Your task to perform on an android device: View the shopping cart on bestbuy.com. Add asus zenbook to the cart on bestbuy.com Image 0: 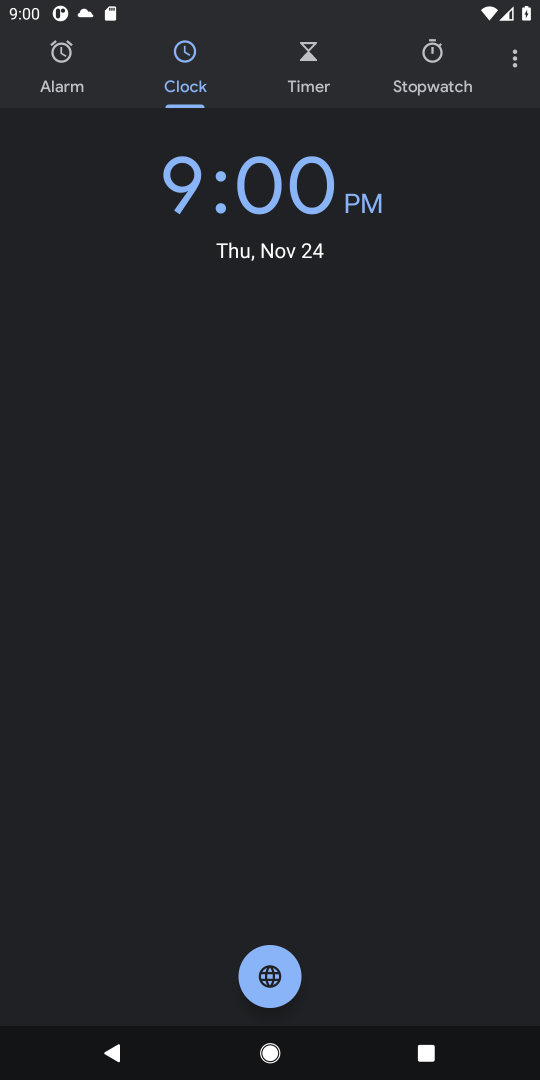
Step 0: press home button
Your task to perform on an android device: View the shopping cart on bestbuy.com. Add asus zenbook to the cart on bestbuy.com Image 1: 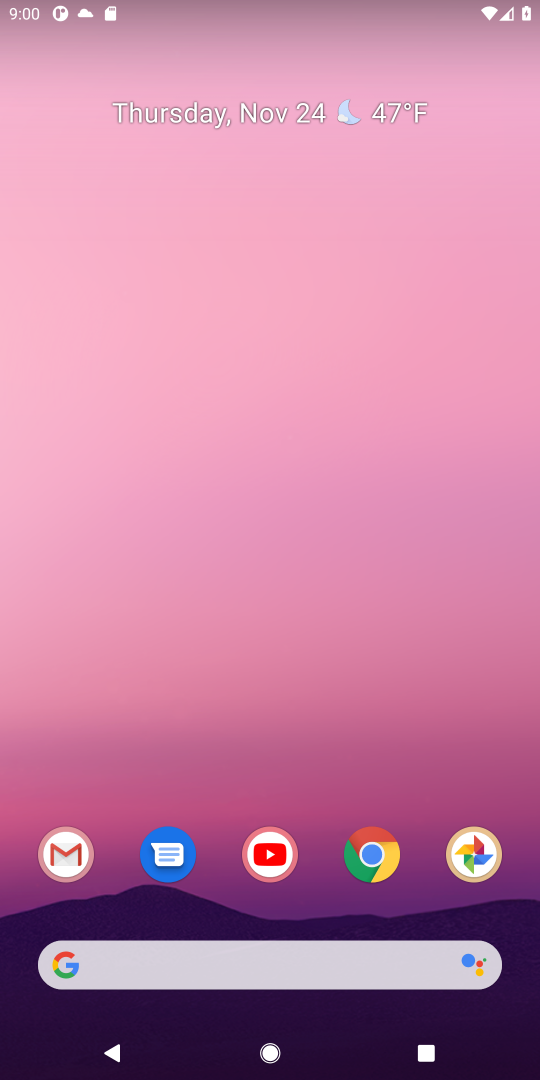
Step 1: click (366, 858)
Your task to perform on an android device: View the shopping cart on bestbuy.com. Add asus zenbook to the cart on bestbuy.com Image 2: 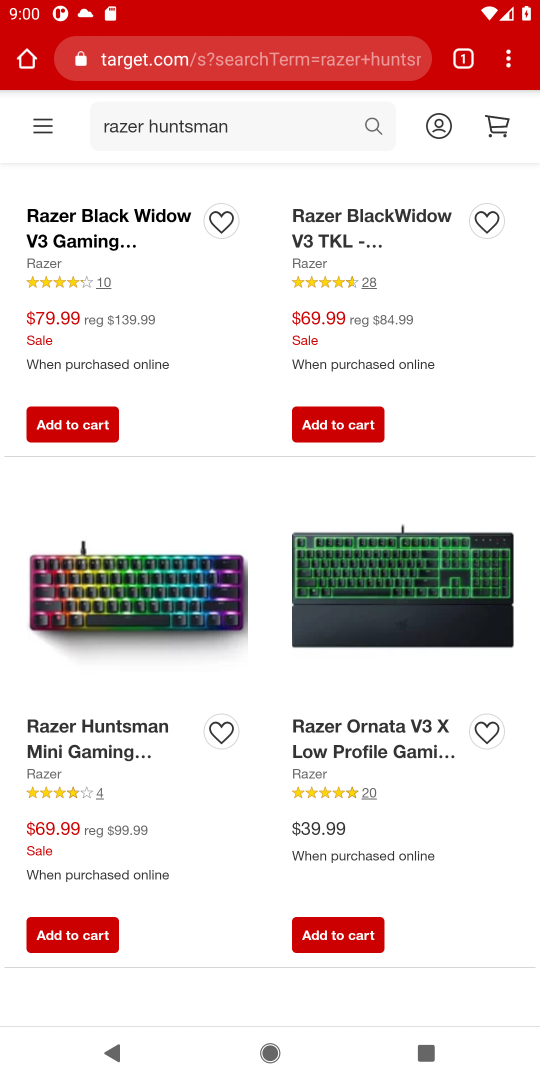
Step 2: click (180, 65)
Your task to perform on an android device: View the shopping cart on bestbuy.com. Add asus zenbook to the cart on bestbuy.com Image 3: 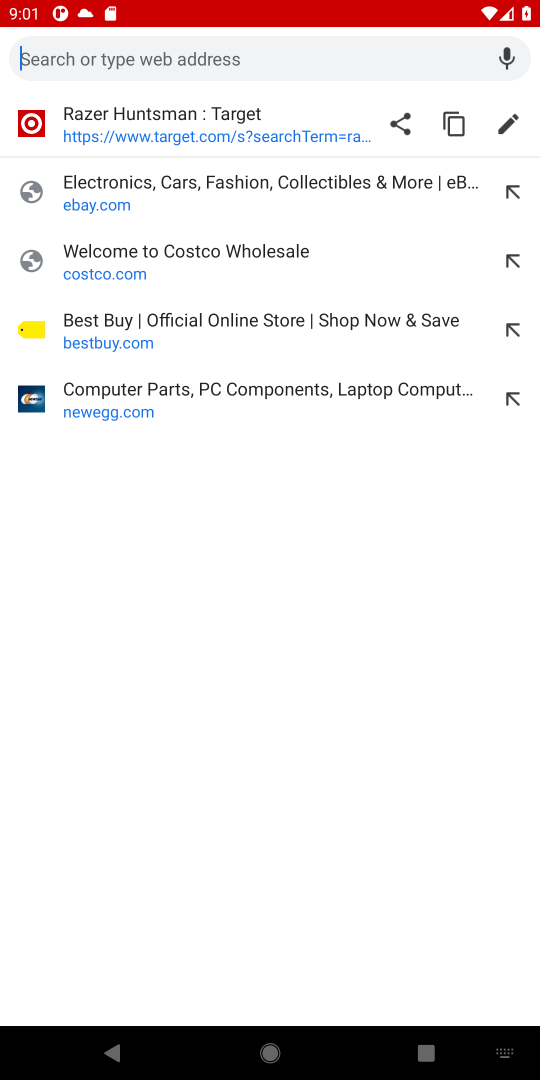
Step 3: click (69, 329)
Your task to perform on an android device: View the shopping cart on bestbuy.com. Add asus zenbook to the cart on bestbuy.com Image 4: 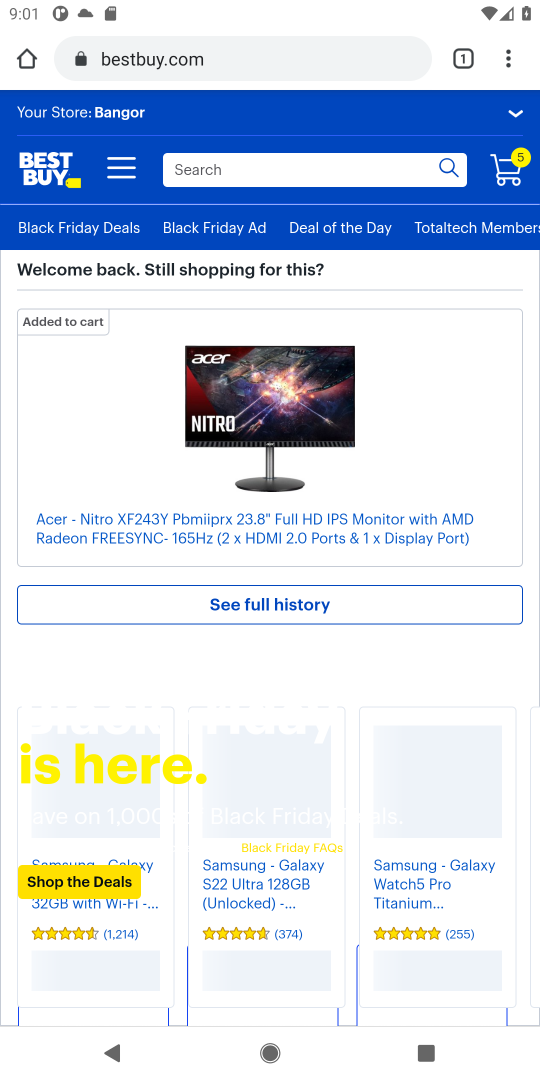
Step 4: click (514, 174)
Your task to perform on an android device: View the shopping cart on bestbuy.com. Add asus zenbook to the cart on bestbuy.com Image 5: 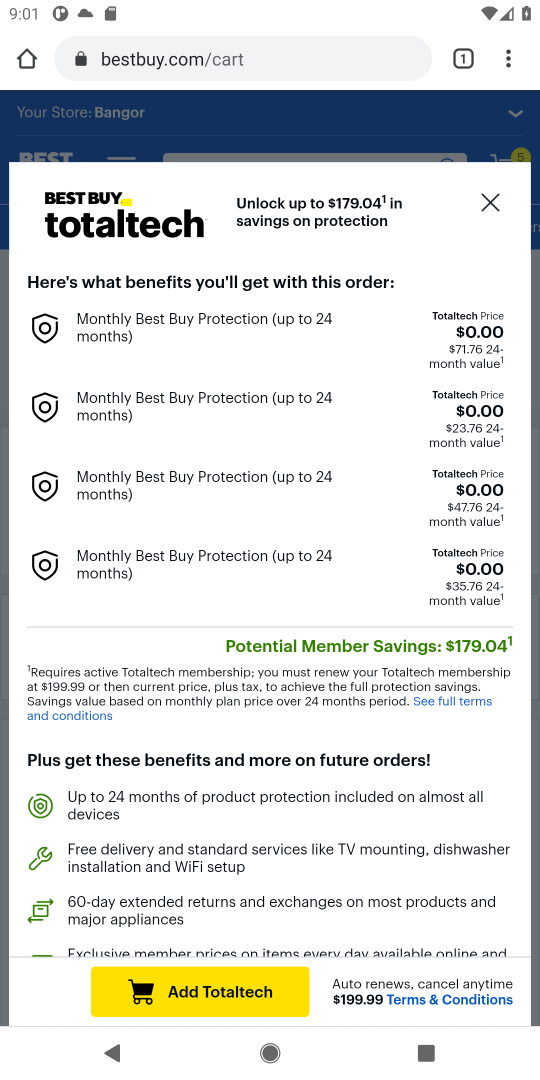
Step 5: click (490, 203)
Your task to perform on an android device: View the shopping cart on bestbuy.com. Add asus zenbook to the cart on bestbuy.com Image 6: 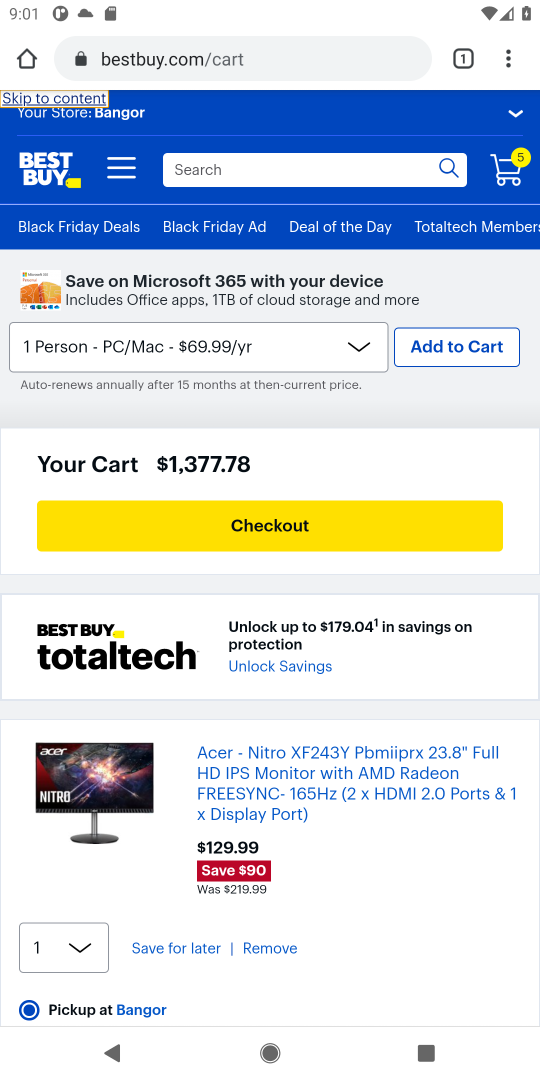
Step 6: drag from (411, 645) to (416, 286)
Your task to perform on an android device: View the shopping cart on bestbuy.com. Add asus zenbook to the cart on bestbuy.com Image 7: 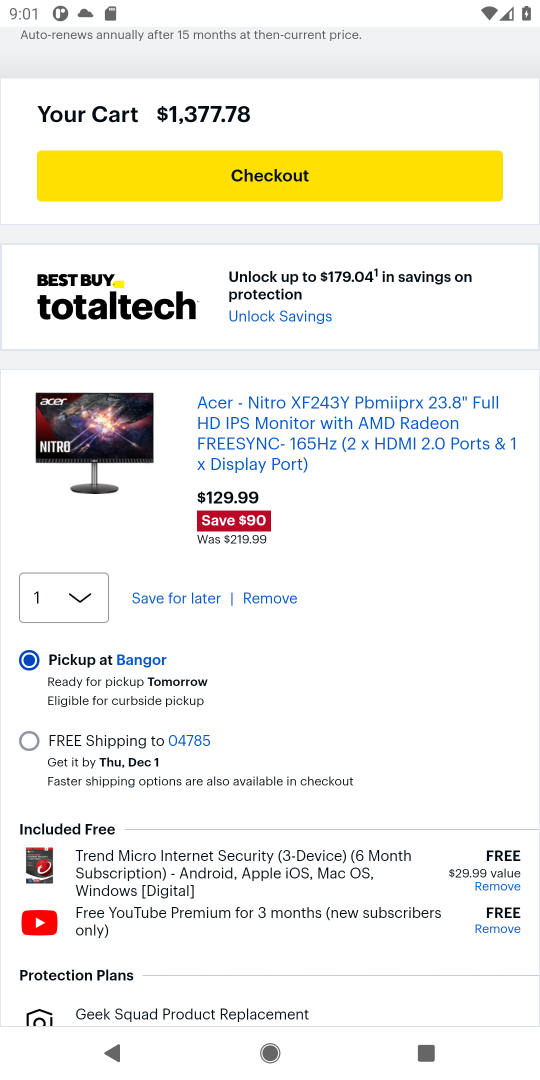
Step 7: drag from (434, 514) to (457, 884)
Your task to perform on an android device: View the shopping cart on bestbuy.com. Add asus zenbook to the cart on bestbuy.com Image 8: 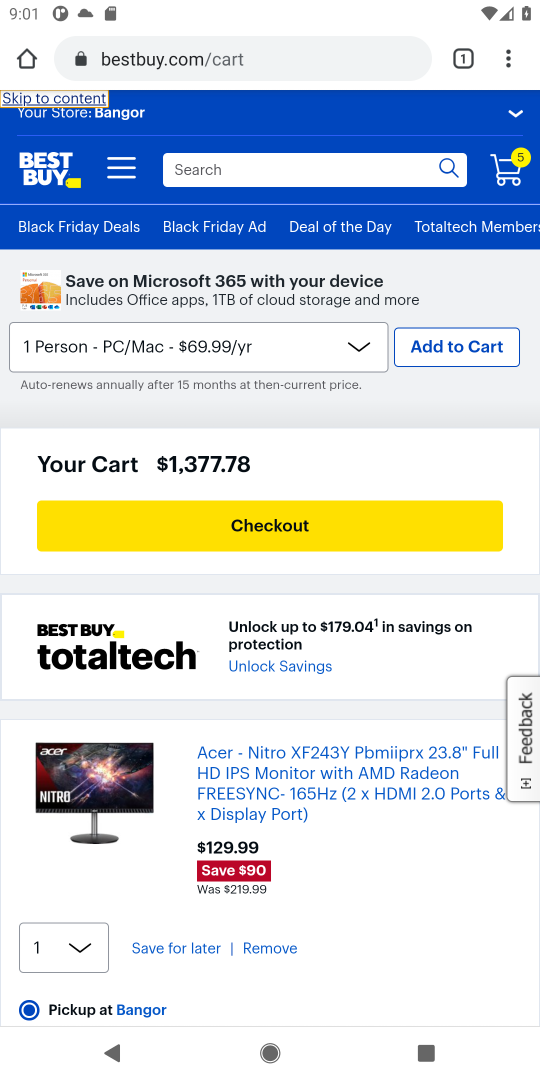
Step 8: click (207, 173)
Your task to perform on an android device: View the shopping cart on bestbuy.com. Add asus zenbook to the cart on bestbuy.com Image 9: 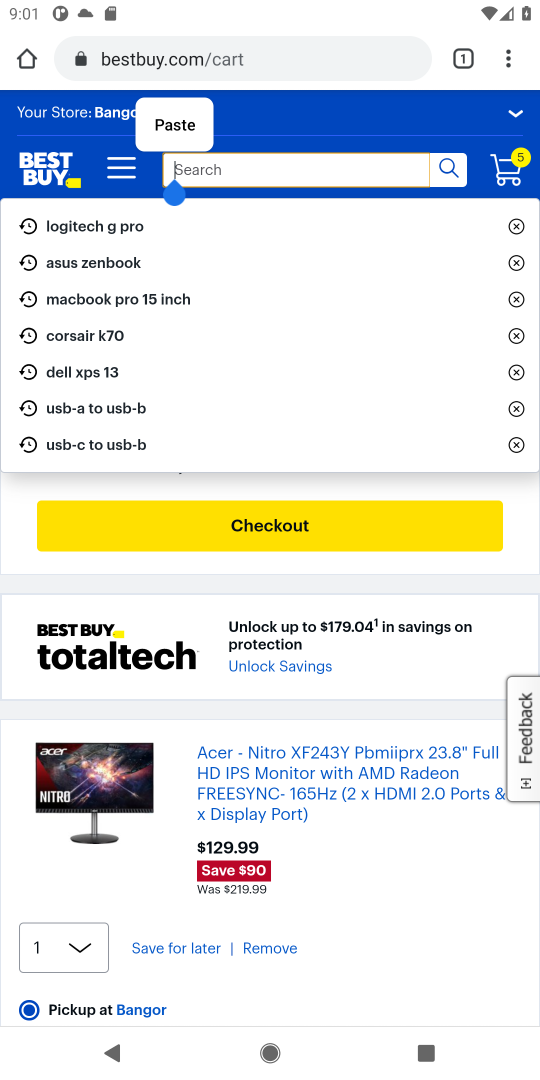
Step 9: type "asus zenbook "
Your task to perform on an android device: View the shopping cart on bestbuy.com. Add asus zenbook to the cart on bestbuy.com Image 10: 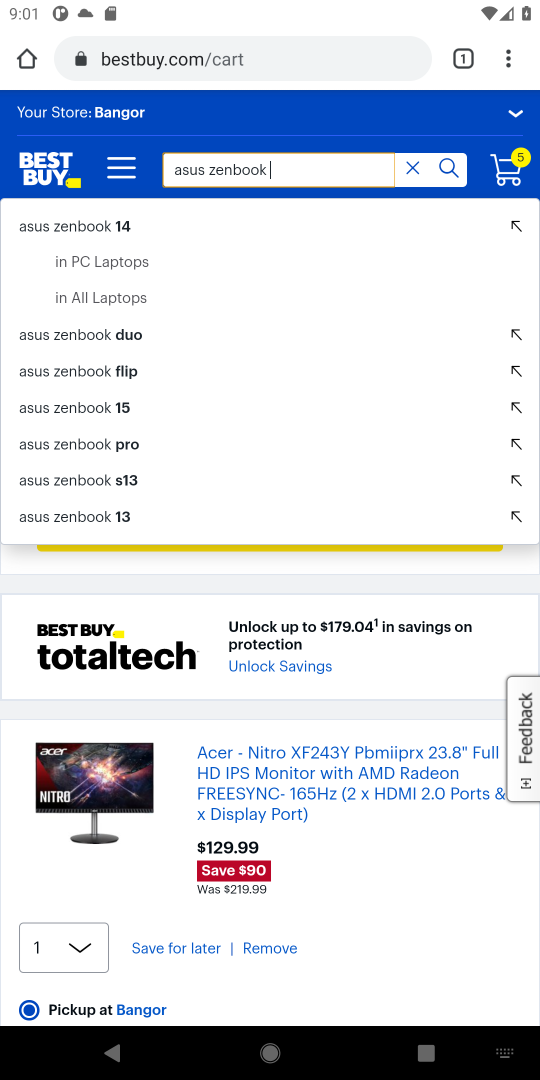
Step 10: click (82, 231)
Your task to perform on an android device: View the shopping cart on bestbuy.com. Add asus zenbook to the cart on bestbuy.com Image 11: 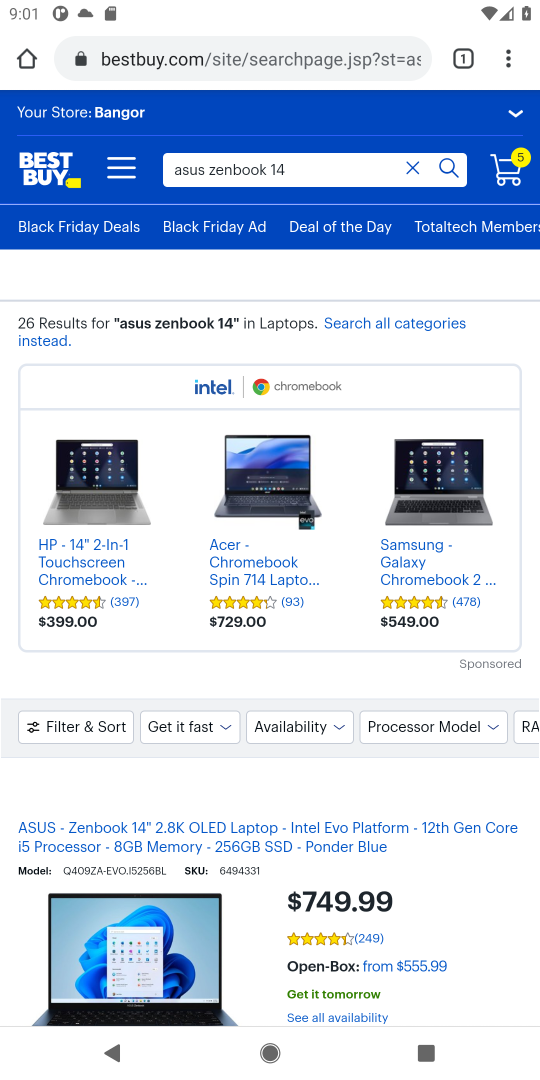
Step 11: drag from (256, 689) to (253, 360)
Your task to perform on an android device: View the shopping cart on bestbuy.com. Add asus zenbook to the cart on bestbuy.com Image 12: 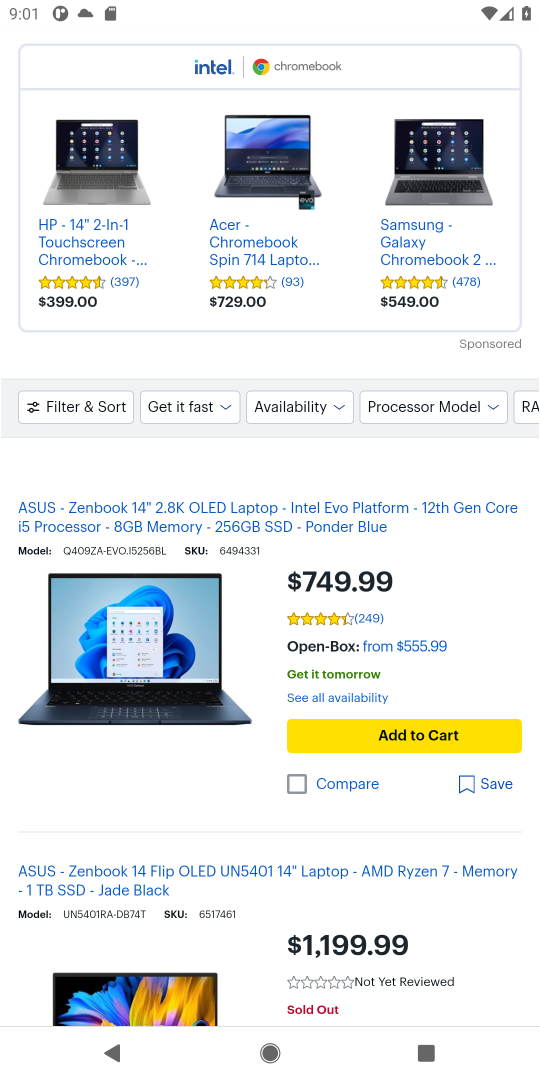
Step 12: click (402, 732)
Your task to perform on an android device: View the shopping cart on bestbuy.com. Add asus zenbook to the cart on bestbuy.com Image 13: 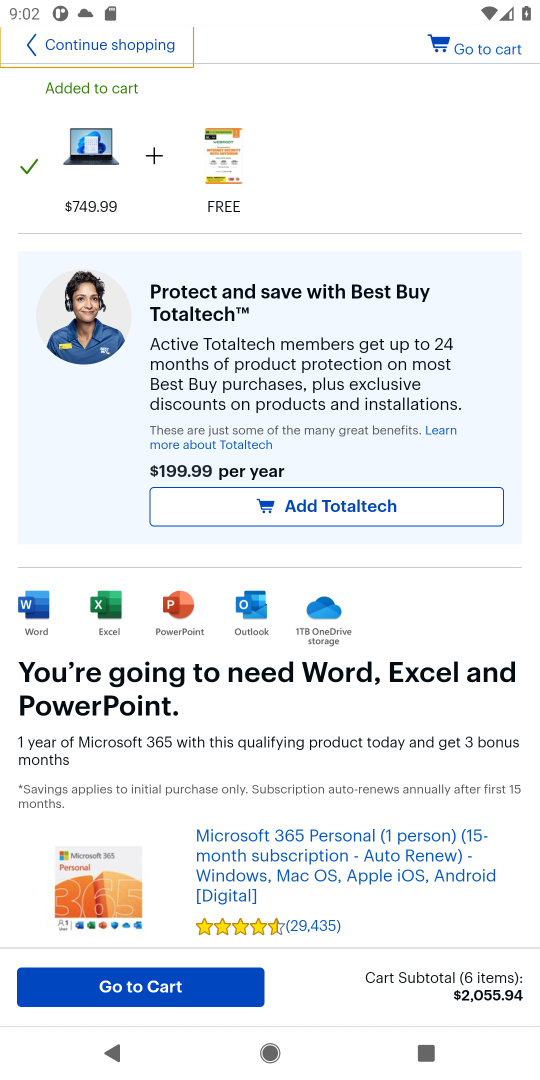
Step 13: task complete